Your task to perform on an android device: open a bookmark in the chrome app Image 0: 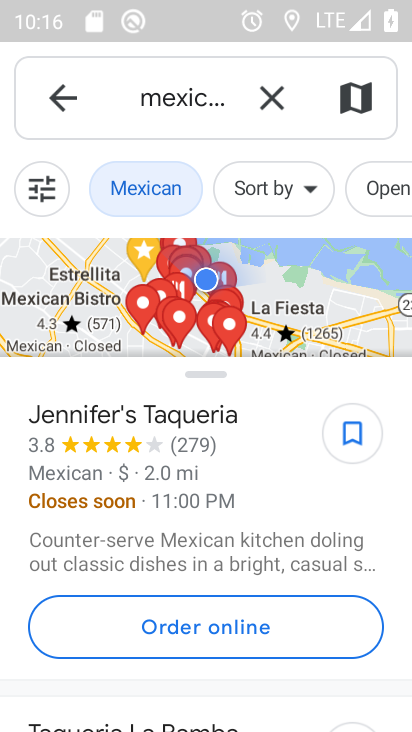
Step 0: press home button
Your task to perform on an android device: open a bookmark in the chrome app Image 1: 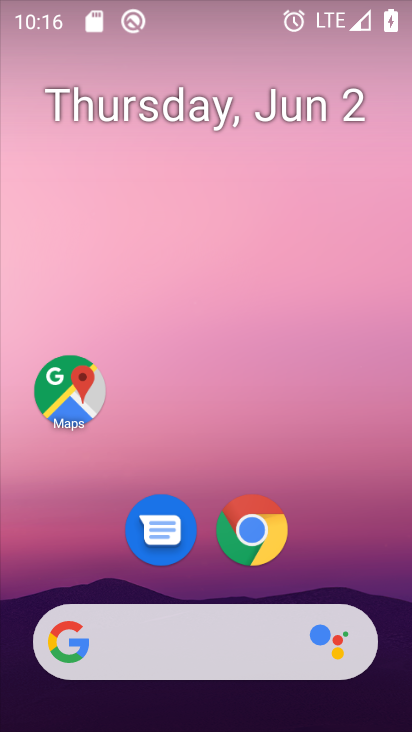
Step 1: drag from (201, 581) to (253, 68)
Your task to perform on an android device: open a bookmark in the chrome app Image 2: 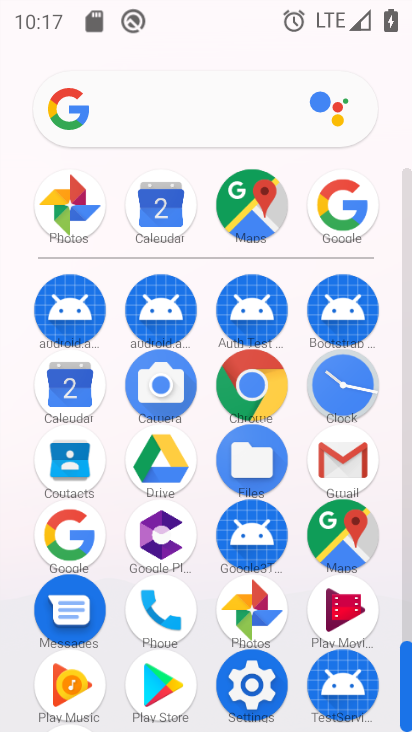
Step 2: click (247, 383)
Your task to perform on an android device: open a bookmark in the chrome app Image 3: 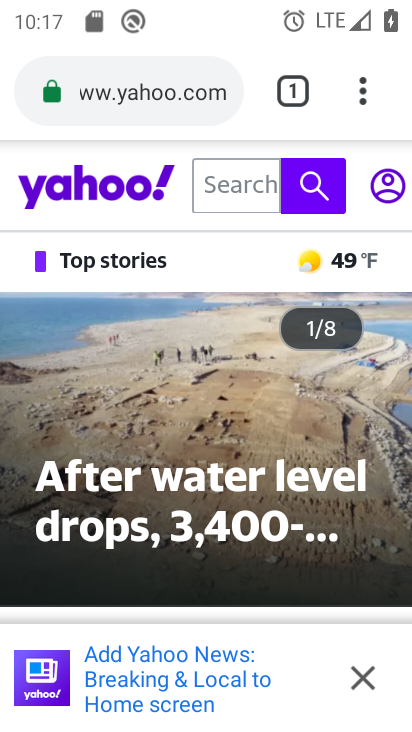
Step 3: click (361, 84)
Your task to perform on an android device: open a bookmark in the chrome app Image 4: 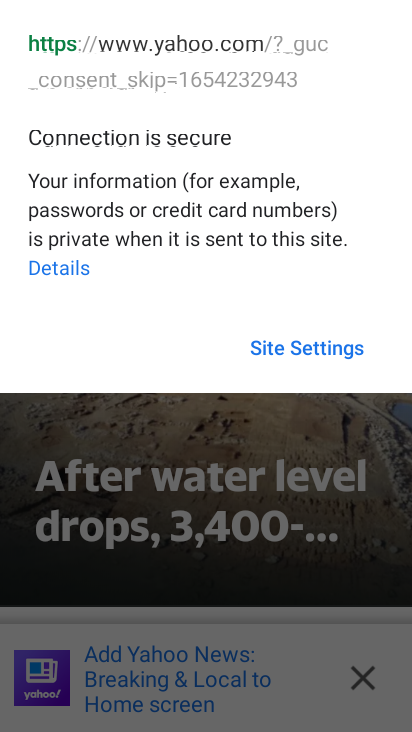
Step 4: click (301, 454)
Your task to perform on an android device: open a bookmark in the chrome app Image 5: 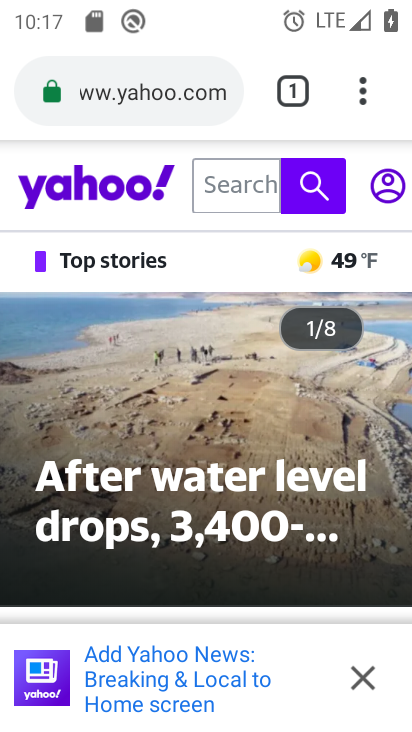
Step 5: click (364, 88)
Your task to perform on an android device: open a bookmark in the chrome app Image 6: 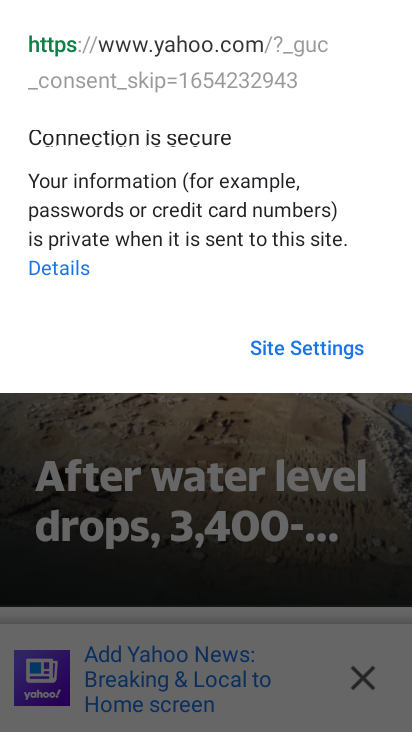
Step 6: click (314, 450)
Your task to perform on an android device: open a bookmark in the chrome app Image 7: 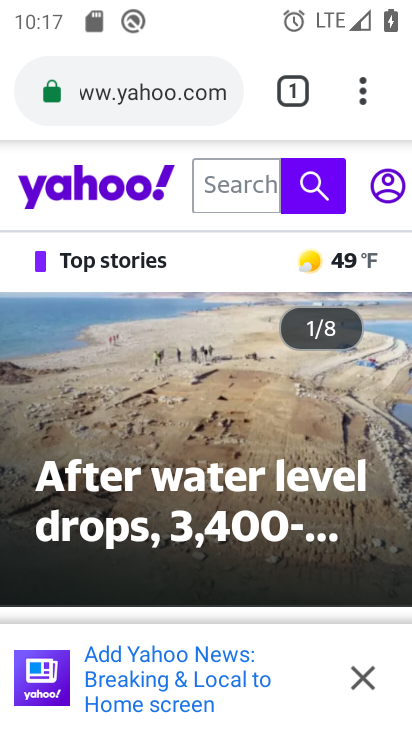
Step 7: click (363, 88)
Your task to perform on an android device: open a bookmark in the chrome app Image 8: 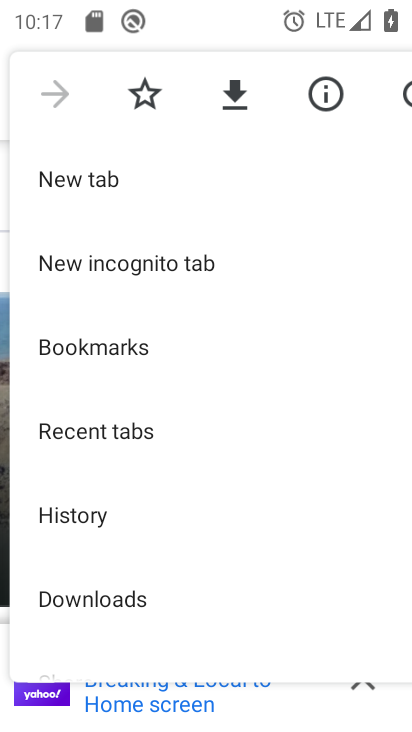
Step 8: drag from (135, 566) to (135, 185)
Your task to perform on an android device: open a bookmark in the chrome app Image 9: 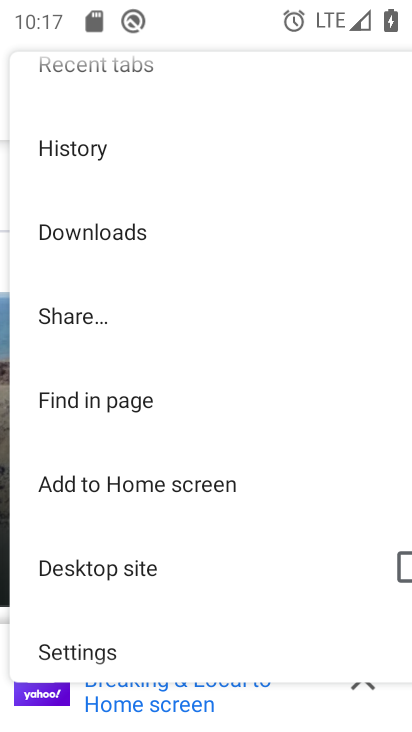
Step 9: drag from (141, 194) to (123, 552)
Your task to perform on an android device: open a bookmark in the chrome app Image 10: 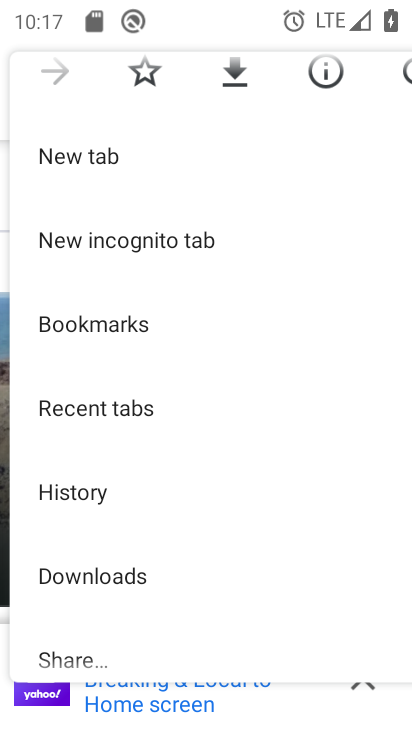
Step 10: click (114, 329)
Your task to perform on an android device: open a bookmark in the chrome app Image 11: 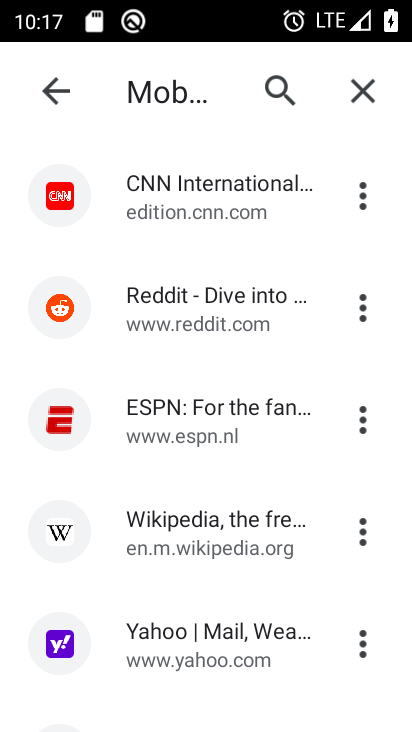
Step 11: task complete